Your task to perform on an android device: What's on my calendar today? Image 0: 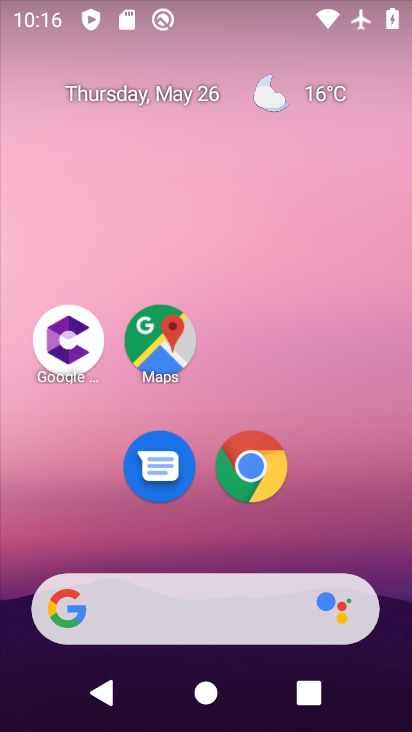
Step 0: drag from (342, 506) to (220, 36)
Your task to perform on an android device: What's on my calendar today? Image 1: 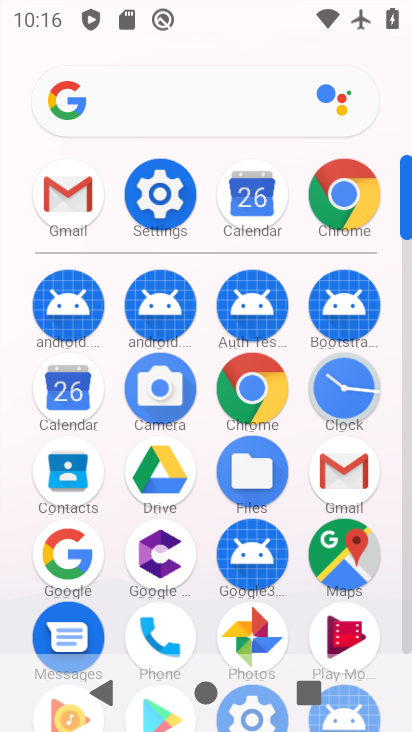
Step 1: click (68, 396)
Your task to perform on an android device: What's on my calendar today? Image 2: 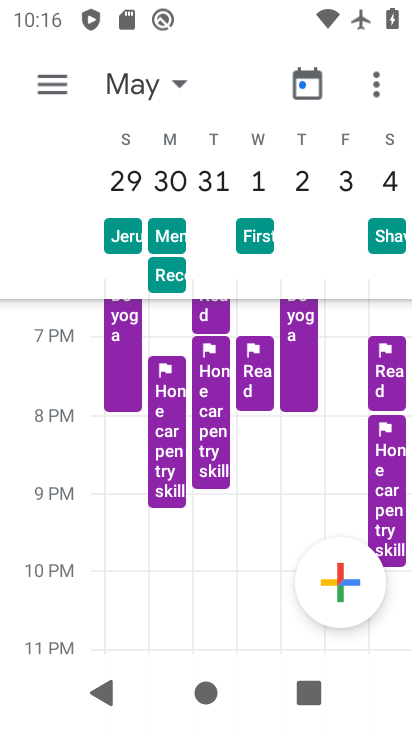
Step 2: click (49, 82)
Your task to perform on an android device: What's on my calendar today? Image 3: 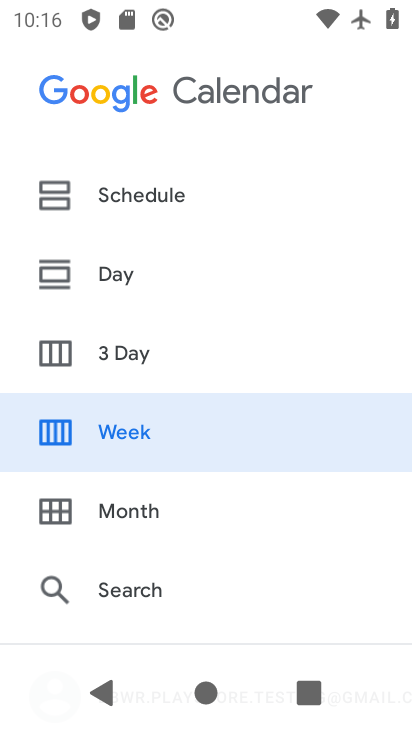
Step 3: click (118, 270)
Your task to perform on an android device: What's on my calendar today? Image 4: 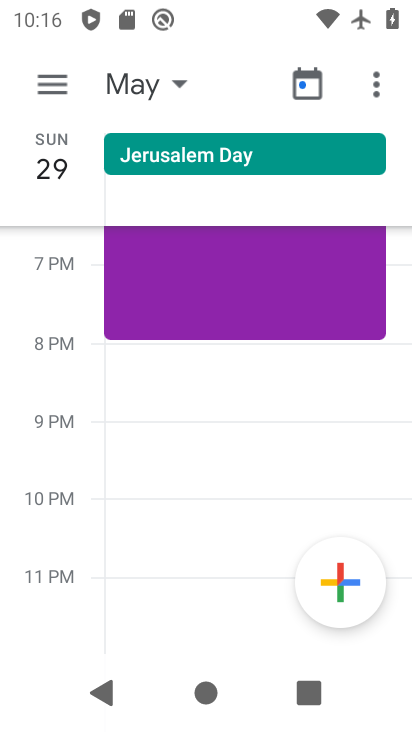
Step 4: click (167, 83)
Your task to perform on an android device: What's on my calendar today? Image 5: 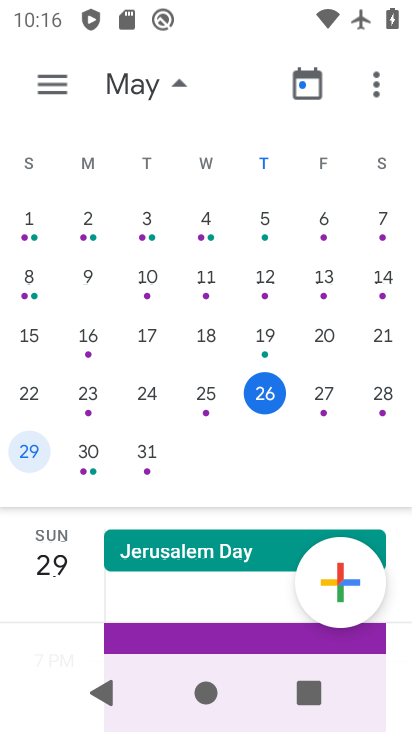
Step 5: click (266, 395)
Your task to perform on an android device: What's on my calendar today? Image 6: 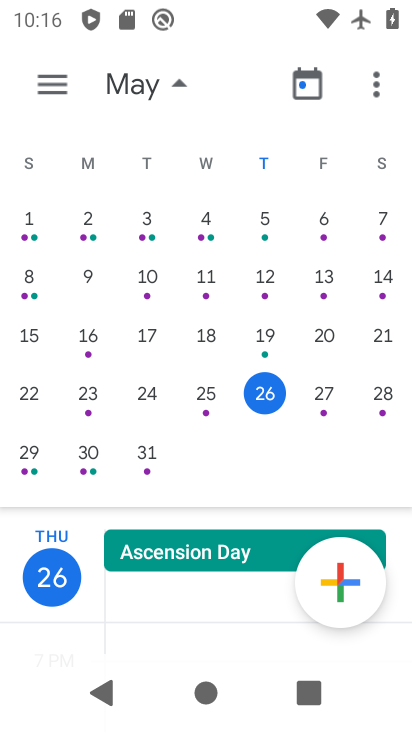
Step 6: task complete